Your task to perform on an android device: Go to notification settings Image 0: 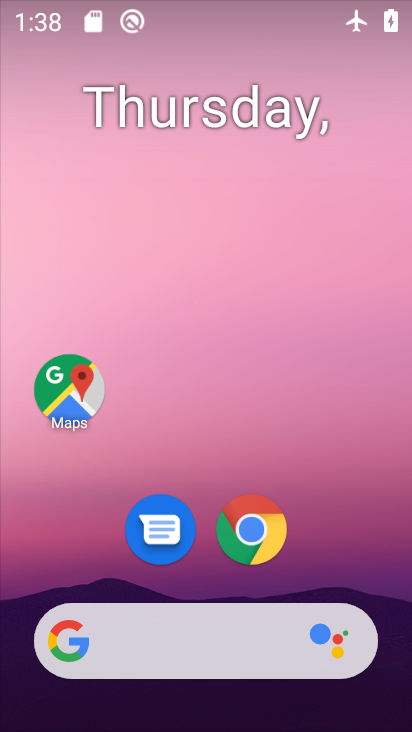
Step 0: click (259, 137)
Your task to perform on an android device: Go to notification settings Image 1: 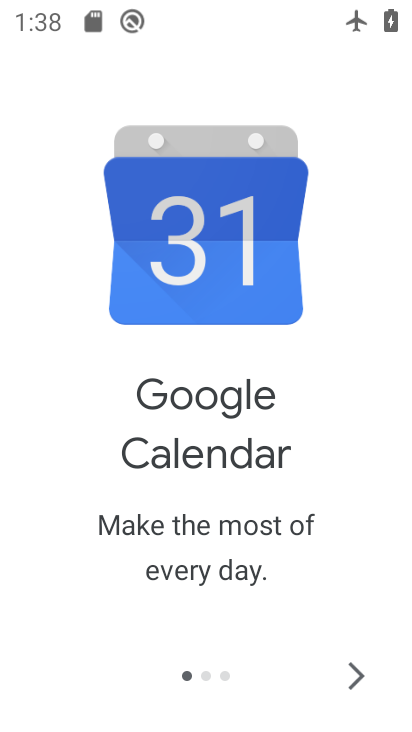
Step 1: press home button
Your task to perform on an android device: Go to notification settings Image 2: 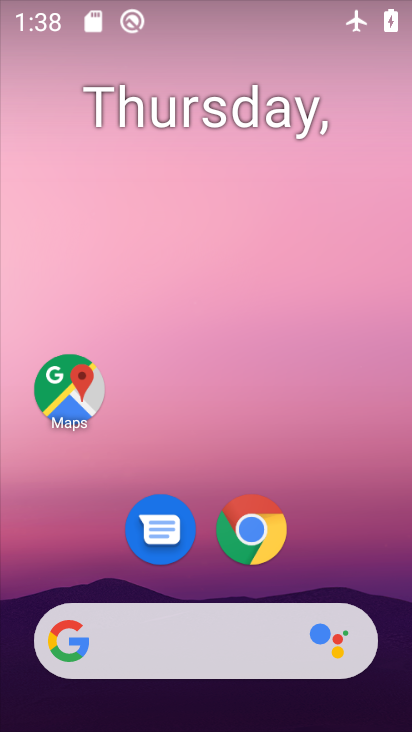
Step 2: drag from (203, 570) to (271, 201)
Your task to perform on an android device: Go to notification settings Image 3: 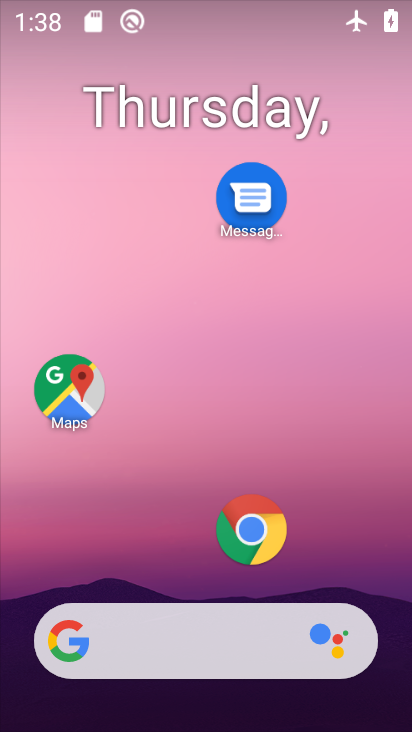
Step 3: drag from (194, 564) to (222, 64)
Your task to perform on an android device: Go to notification settings Image 4: 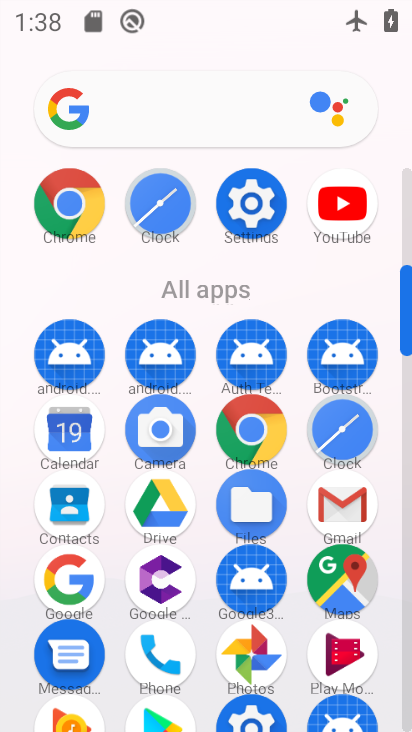
Step 4: click (255, 219)
Your task to perform on an android device: Go to notification settings Image 5: 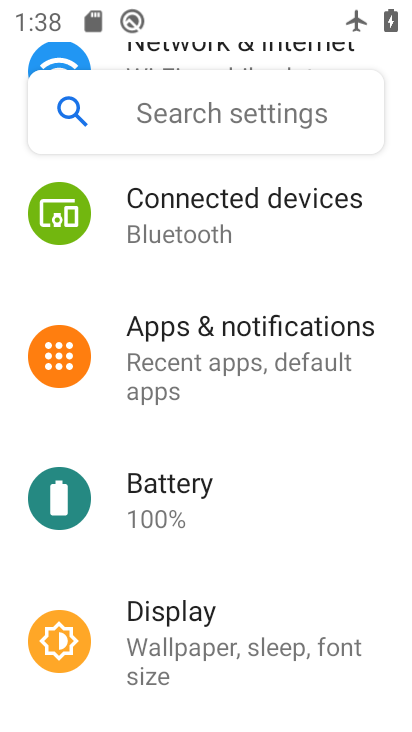
Step 5: click (201, 355)
Your task to perform on an android device: Go to notification settings Image 6: 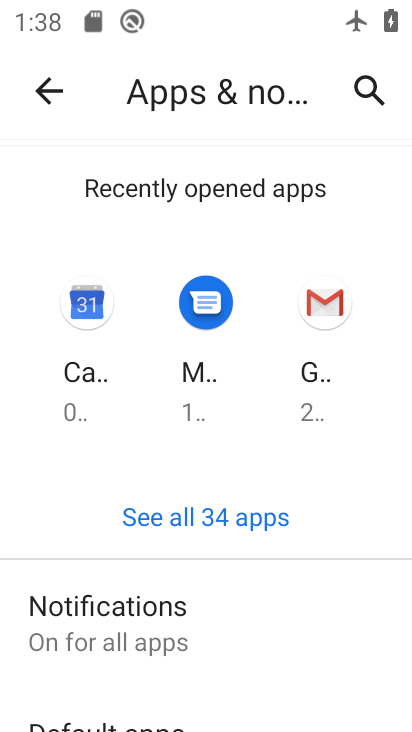
Step 6: click (113, 631)
Your task to perform on an android device: Go to notification settings Image 7: 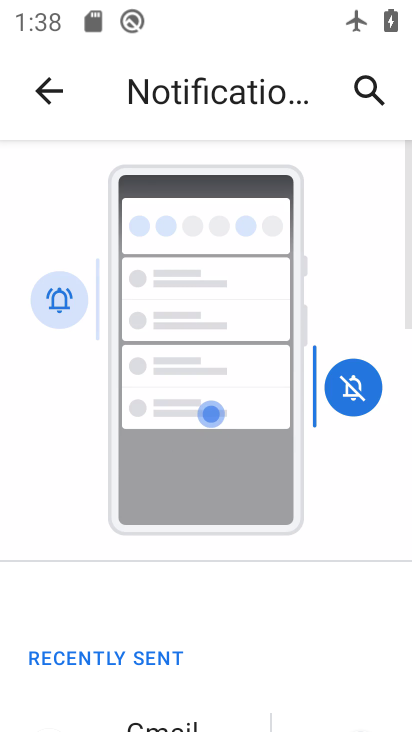
Step 7: drag from (185, 667) to (287, 271)
Your task to perform on an android device: Go to notification settings Image 8: 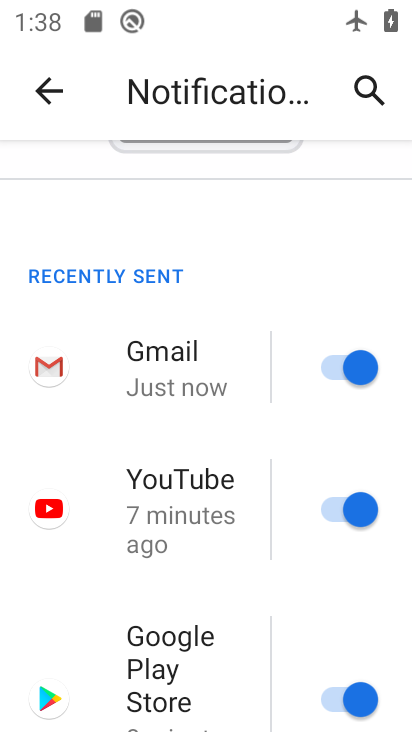
Step 8: drag from (272, 291) to (287, 258)
Your task to perform on an android device: Go to notification settings Image 9: 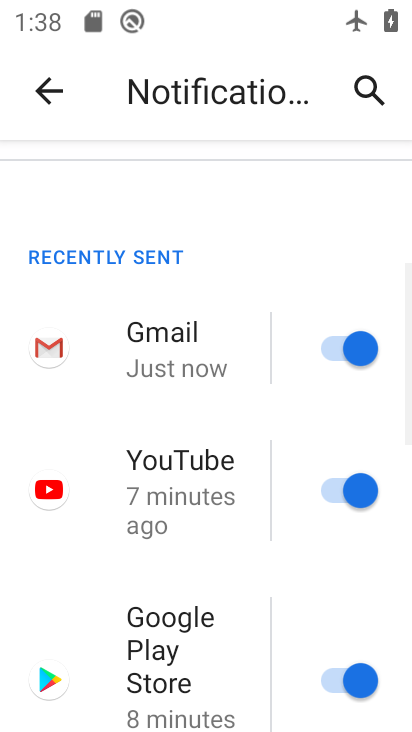
Step 9: drag from (232, 672) to (240, 313)
Your task to perform on an android device: Go to notification settings Image 10: 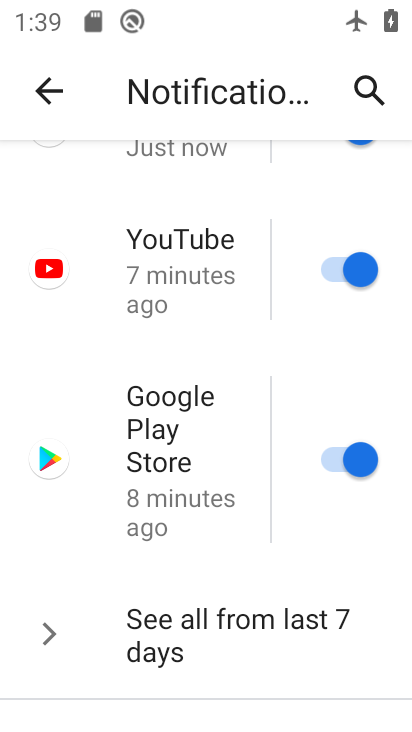
Step 10: drag from (194, 646) to (193, 251)
Your task to perform on an android device: Go to notification settings Image 11: 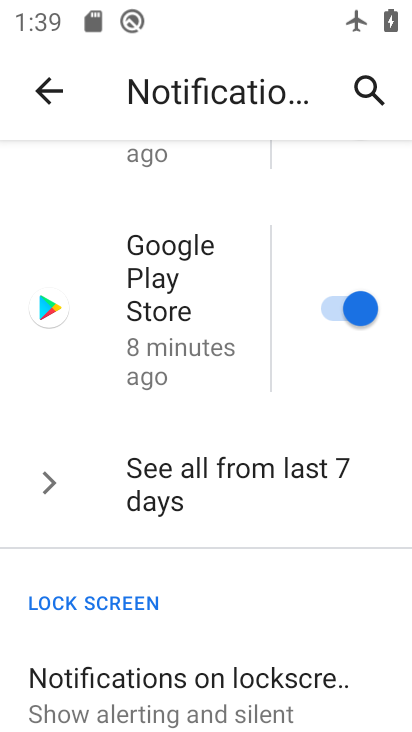
Step 11: click (237, 160)
Your task to perform on an android device: Go to notification settings Image 12: 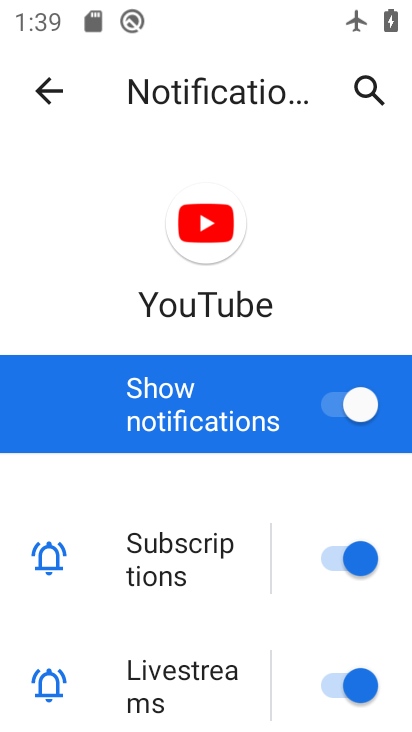
Step 12: click (54, 109)
Your task to perform on an android device: Go to notification settings Image 13: 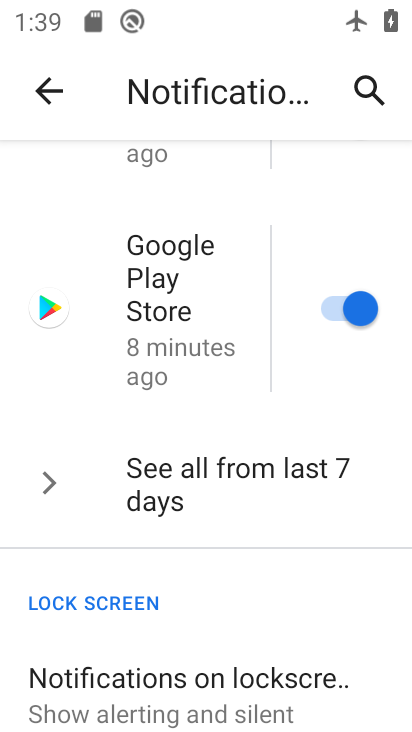
Step 13: click (168, 696)
Your task to perform on an android device: Go to notification settings Image 14: 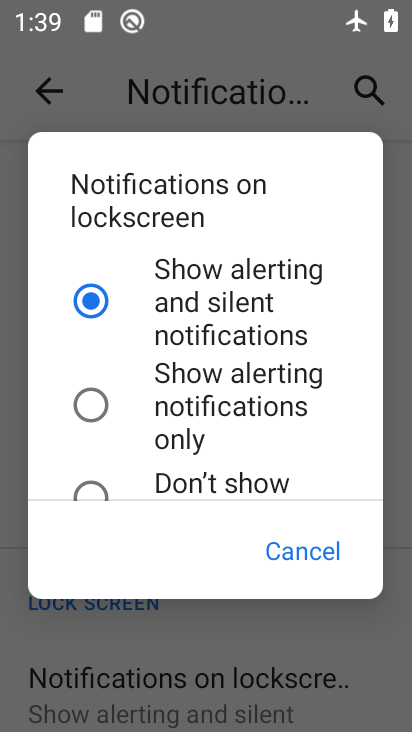
Step 14: click (320, 527)
Your task to perform on an android device: Go to notification settings Image 15: 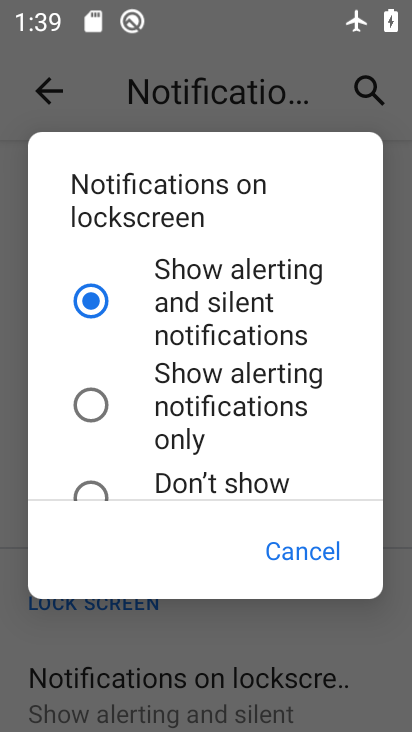
Step 15: click (313, 544)
Your task to perform on an android device: Go to notification settings Image 16: 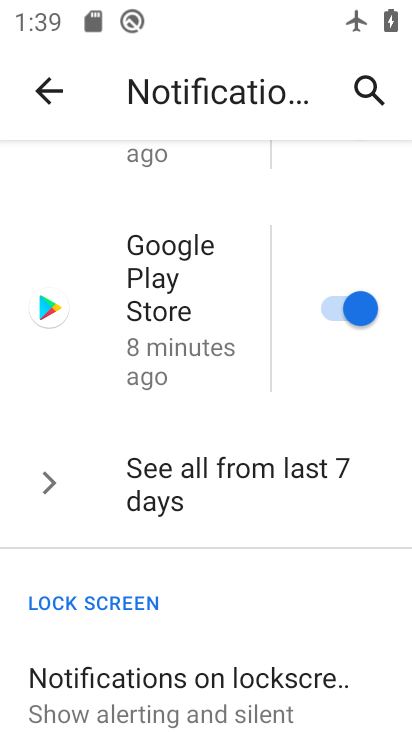
Step 16: task complete